Your task to perform on an android device: Do I have any events this weekend? Image 0: 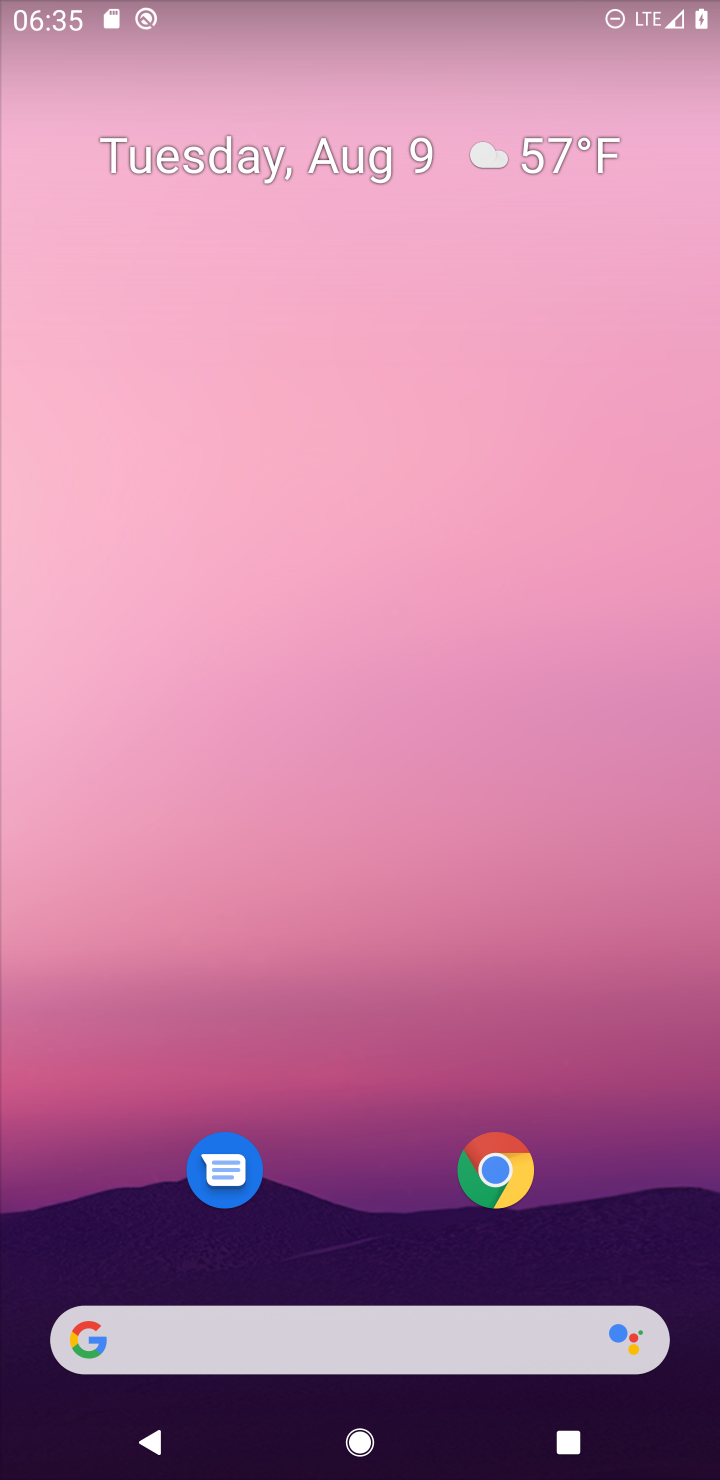
Step 0: drag from (374, 1266) to (248, 9)
Your task to perform on an android device: Do I have any events this weekend? Image 1: 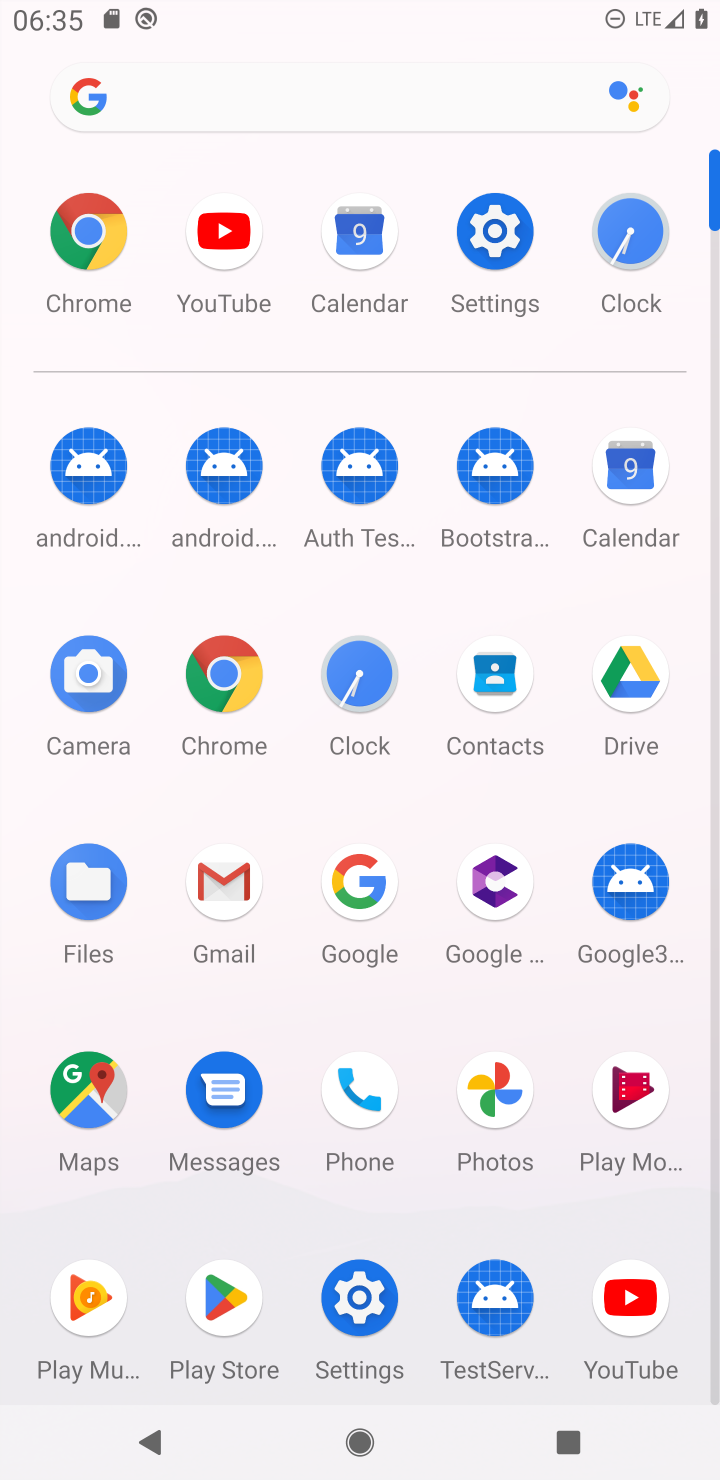
Step 1: click (627, 486)
Your task to perform on an android device: Do I have any events this weekend? Image 2: 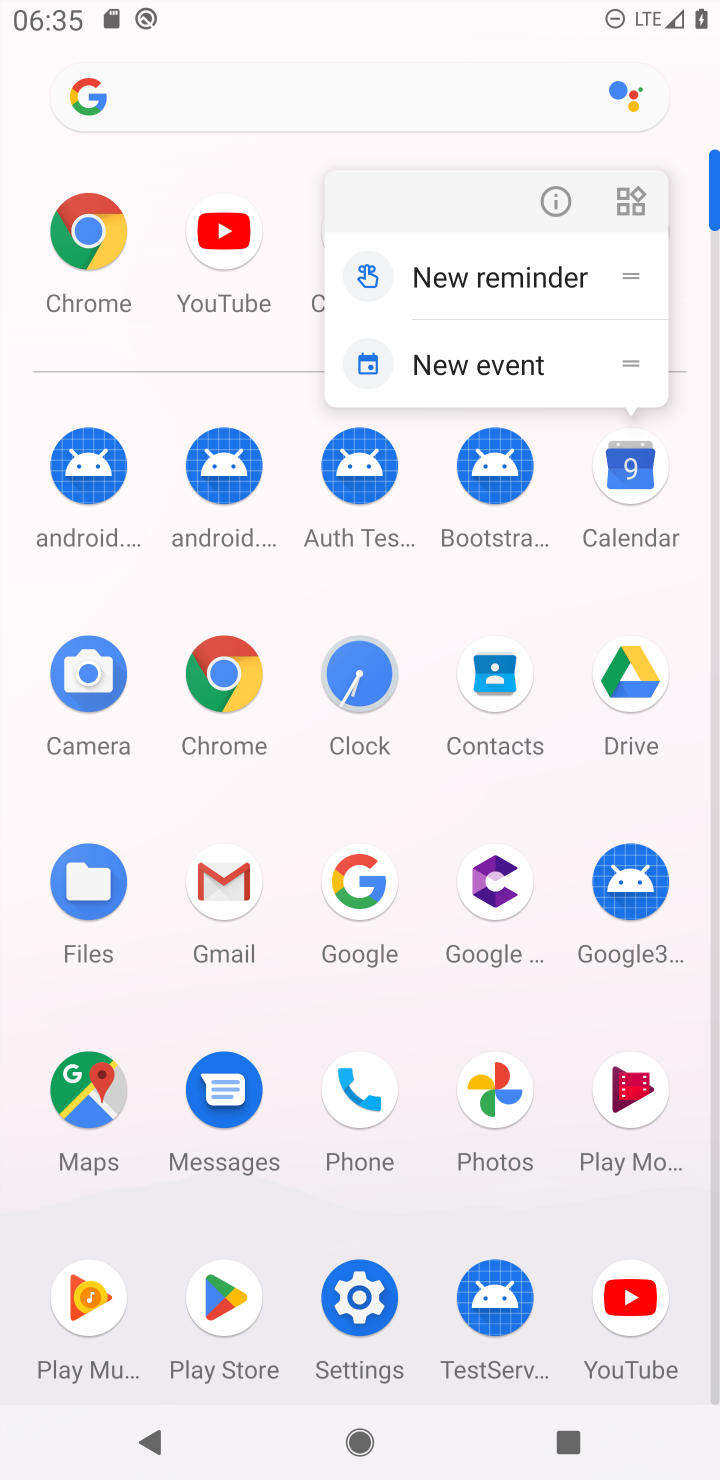
Step 2: click (627, 486)
Your task to perform on an android device: Do I have any events this weekend? Image 3: 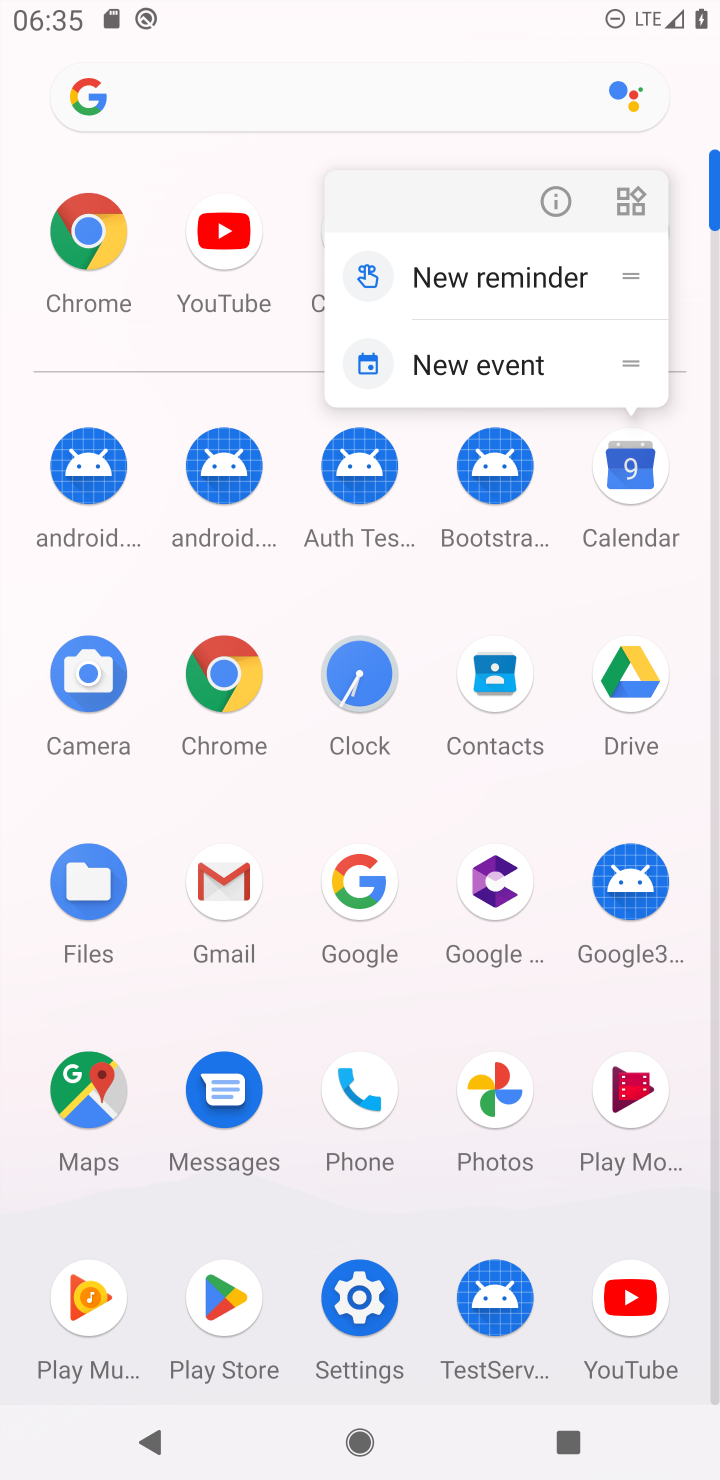
Step 3: click (627, 486)
Your task to perform on an android device: Do I have any events this weekend? Image 4: 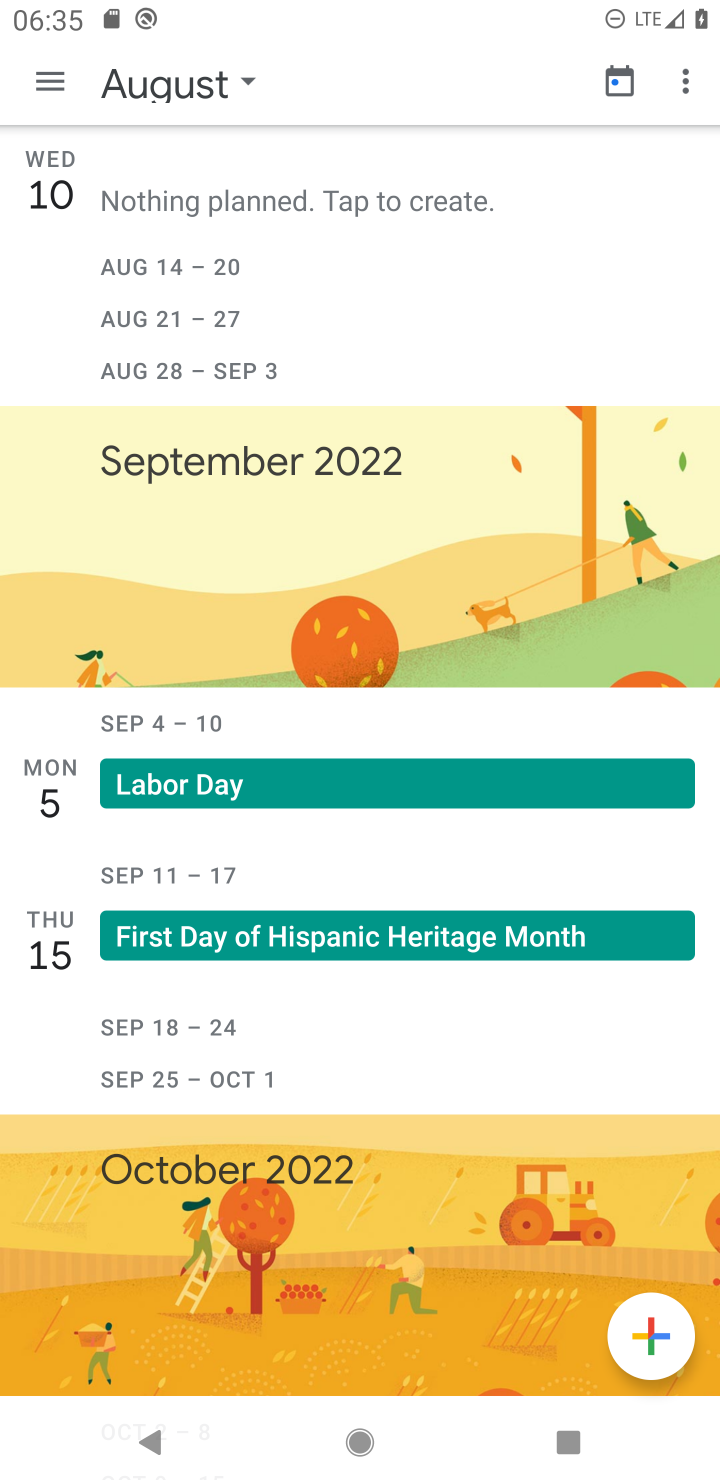
Step 4: click (59, 82)
Your task to perform on an android device: Do I have any events this weekend? Image 5: 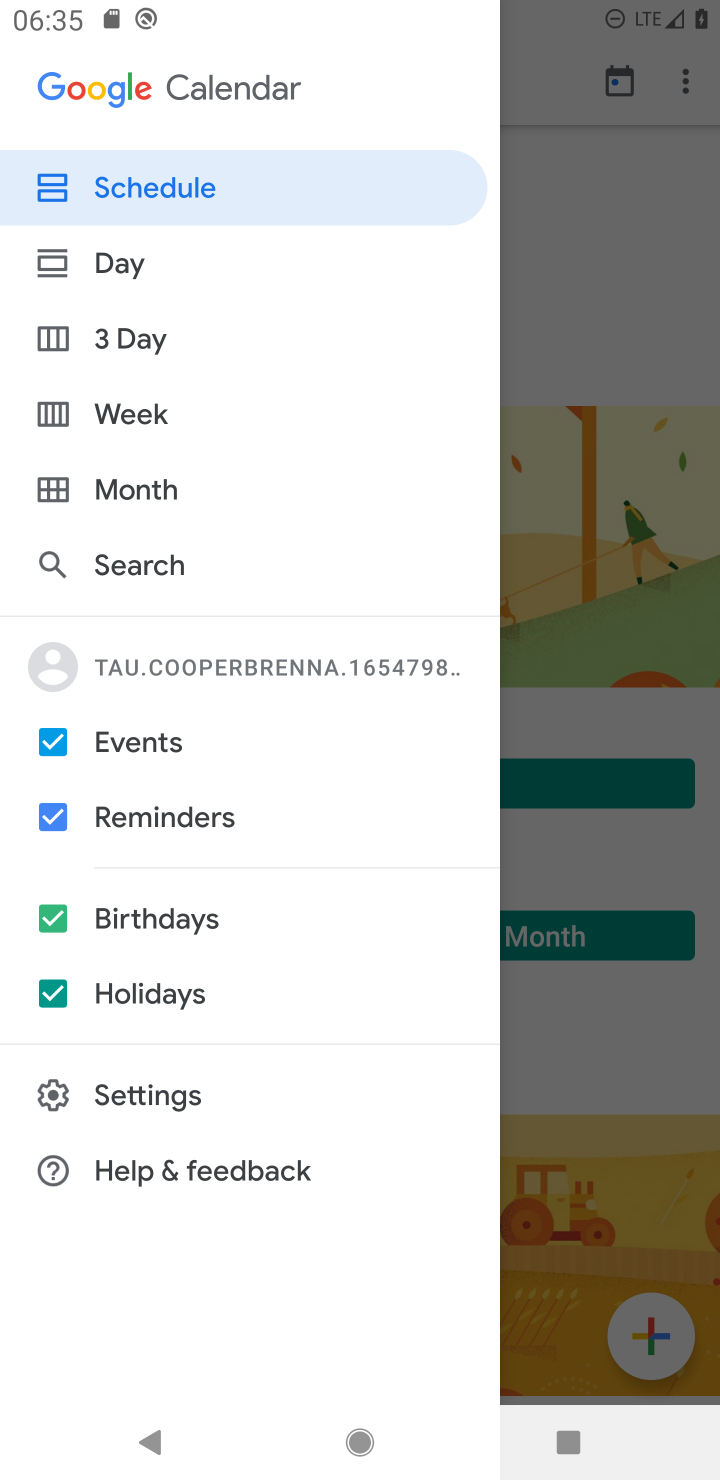
Step 5: click (134, 412)
Your task to perform on an android device: Do I have any events this weekend? Image 6: 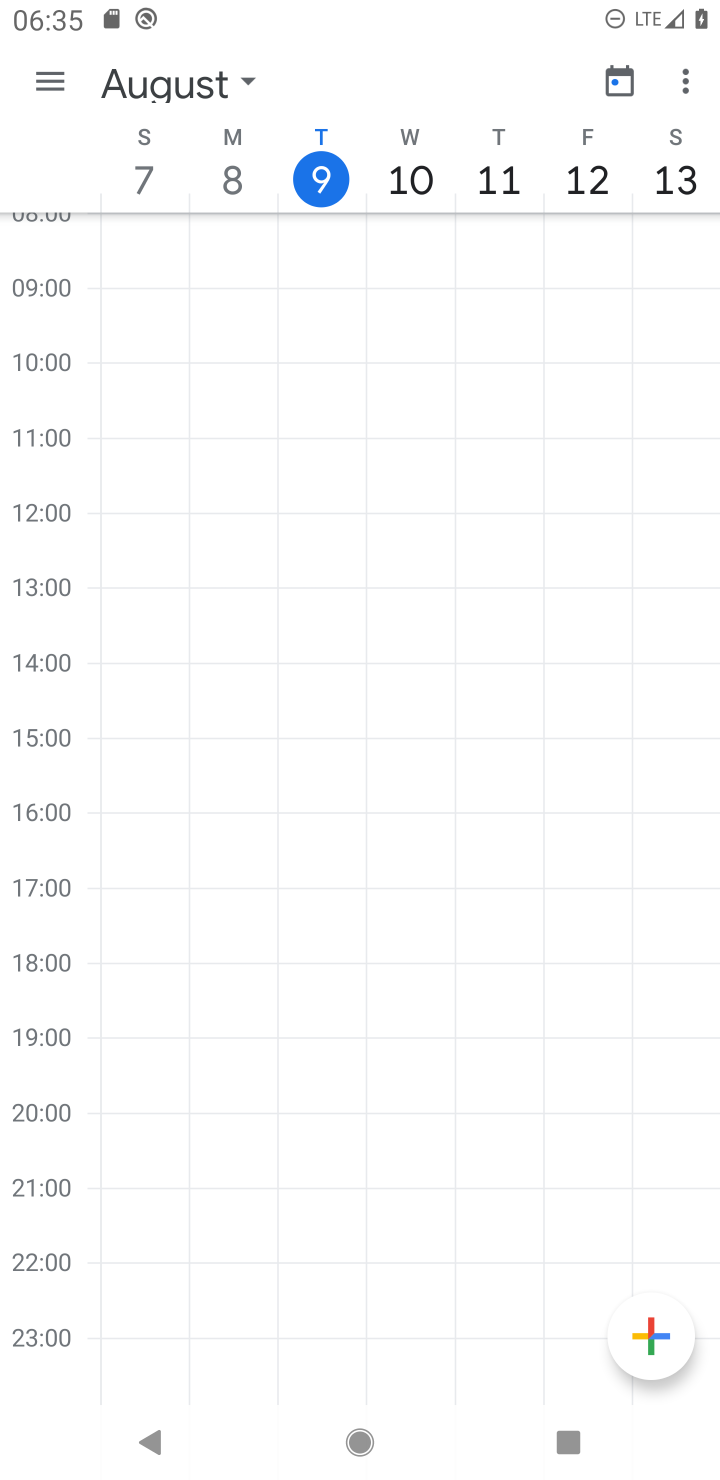
Step 6: task complete